Your task to perform on an android device: Is it going to rain today? Image 0: 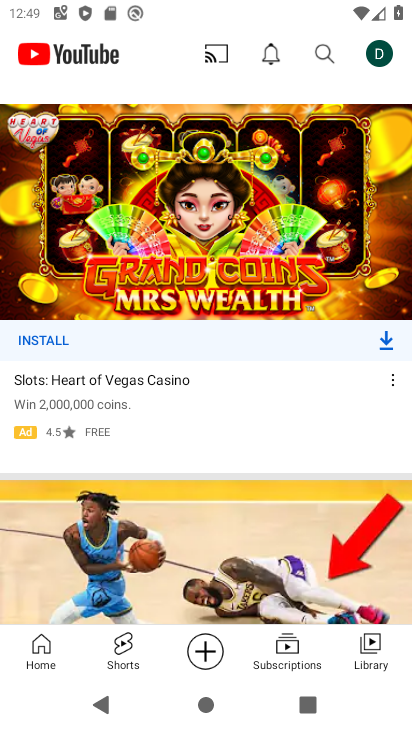
Step 0: press home button
Your task to perform on an android device: Is it going to rain today? Image 1: 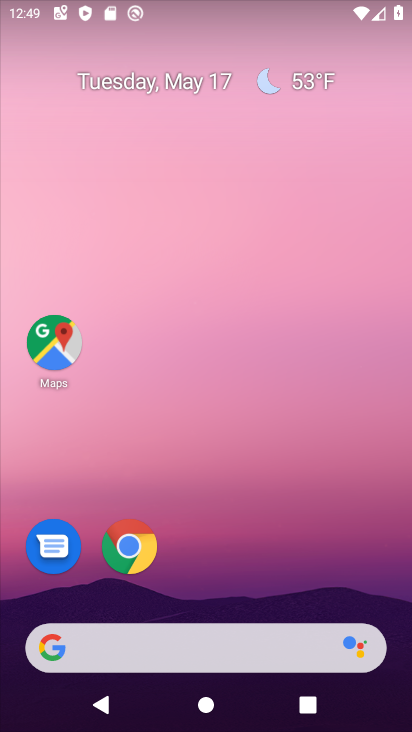
Step 1: drag from (198, 430) to (180, 171)
Your task to perform on an android device: Is it going to rain today? Image 2: 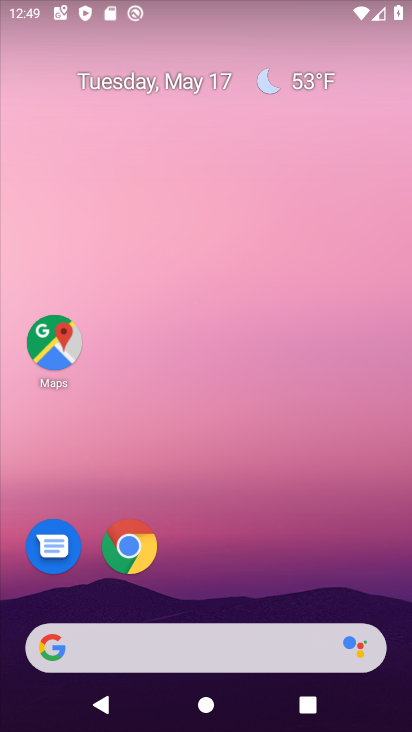
Step 2: drag from (219, 606) to (223, 192)
Your task to perform on an android device: Is it going to rain today? Image 3: 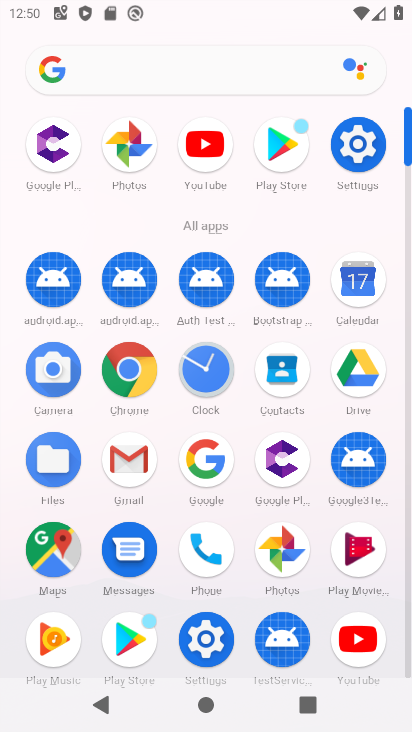
Step 3: click (228, 417)
Your task to perform on an android device: Is it going to rain today? Image 4: 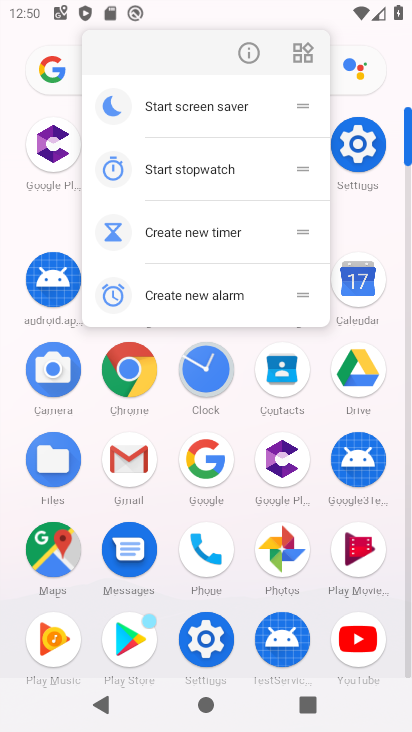
Step 4: click (230, 425)
Your task to perform on an android device: Is it going to rain today? Image 5: 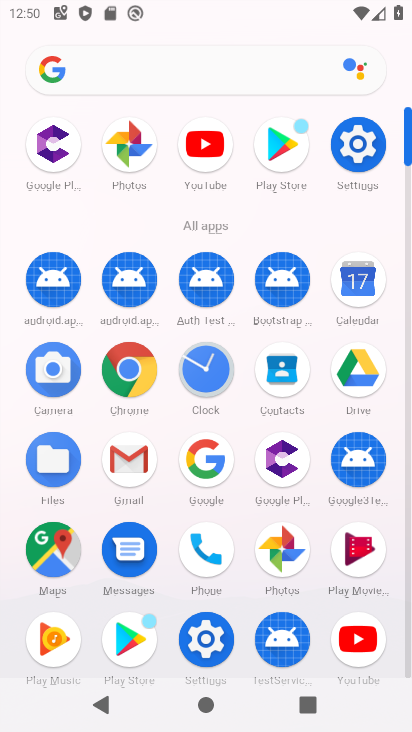
Step 5: click (212, 442)
Your task to perform on an android device: Is it going to rain today? Image 6: 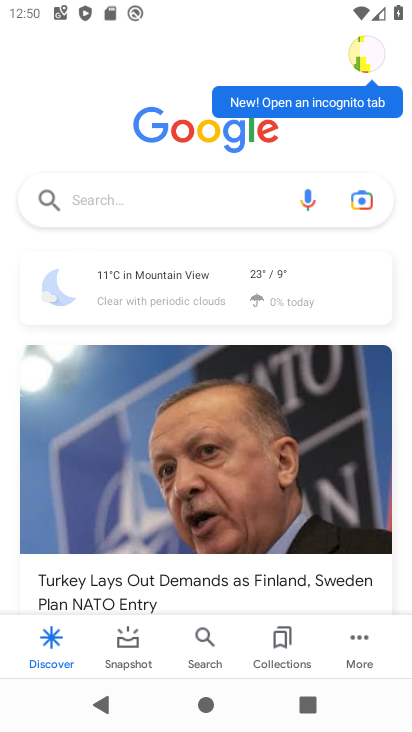
Step 6: click (169, 259)
Your task to perform on an android device: Is it going to rain today? Image 7: 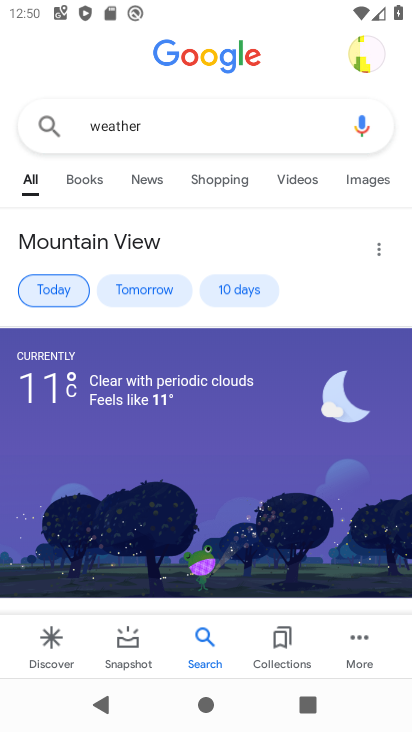
Step 7: task complete